Your task to perform on an android device: turn notification dots on Image 0: 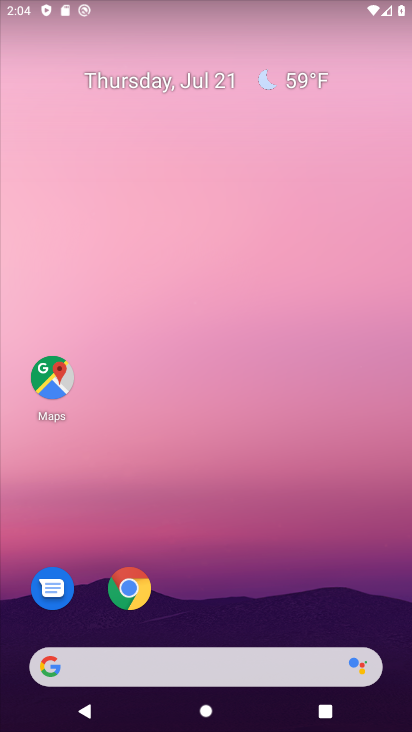
Step 0: press home button
Your task to perform on an android device: turn notification dots on Image 1: 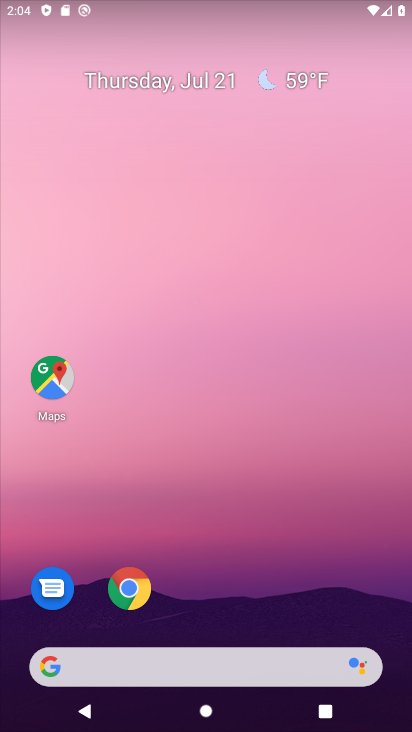
Step 1: drag from (395, 678) to (317, 161)
Your task to perform on an android device: turn notification dots on Image 2: 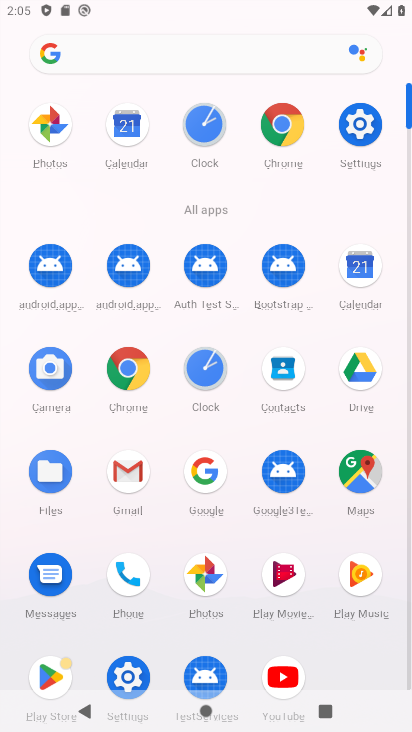
Step 2: click (360, 133)
Your task to perform on an android device: turn notification dots on Image 3: 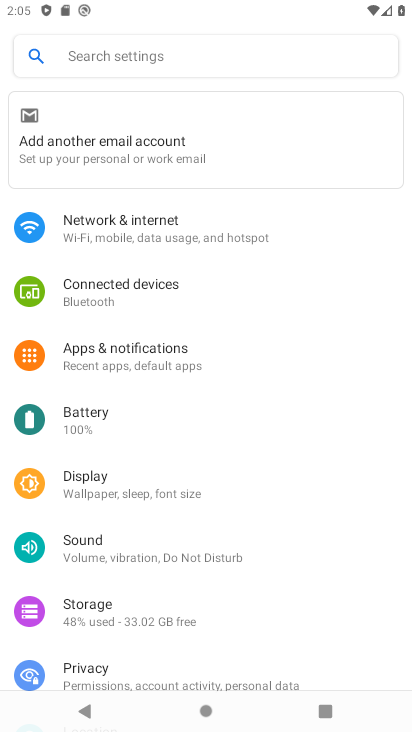
Step 3: click (124, 357)
Your task to perform on an android device: turn notification dots on Image 4: 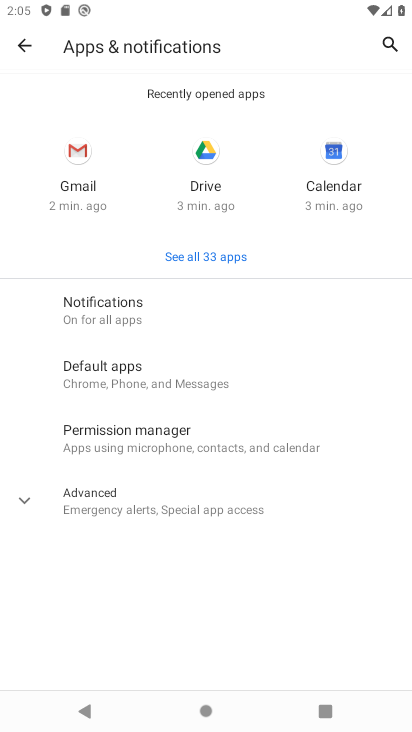
Step 4: click (128, 324)
Your task to perform on an android device: turn notification dots on Image 5: 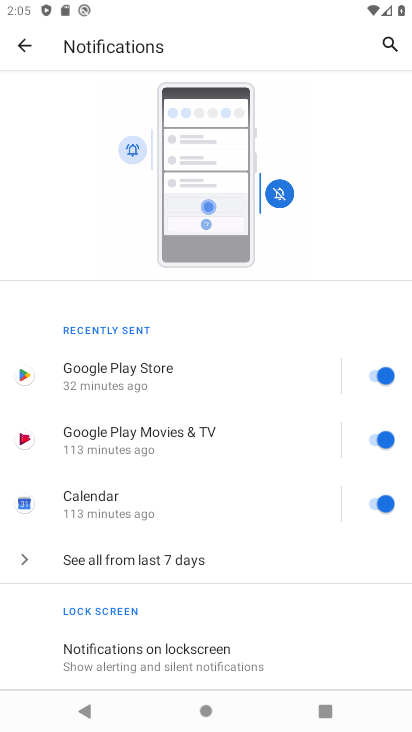
Step 5: drag from (278, 543) to (284, 268)
Your task to perform on an android device: turn notification dots on Image 6: 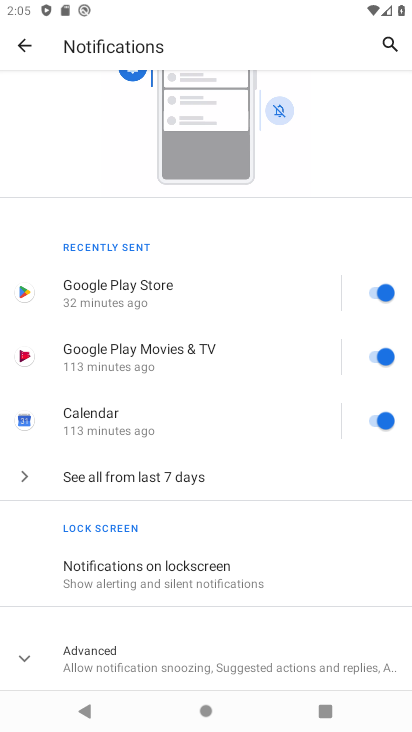
Step 6: click (38, 655)
Your task to perform on an android device: turn notification dots on Image 7: 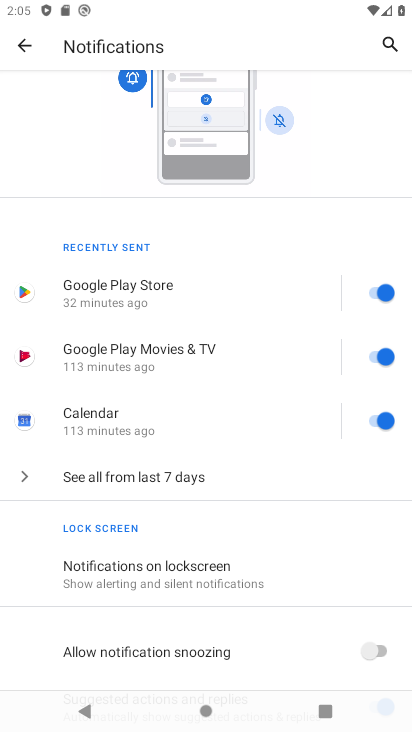
Step 7: task complete